Your task to perform on an android device: open a bookmark in the chrome app Image 0: 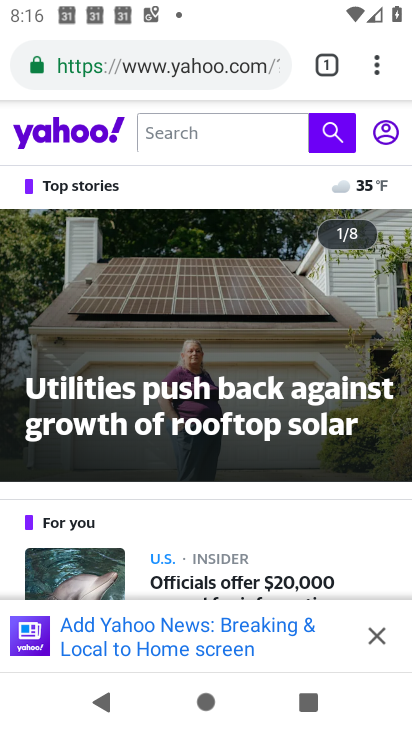
Step 0: press home button
Your task to perform on an android device: open a bookmark in the chrome app Image 1: 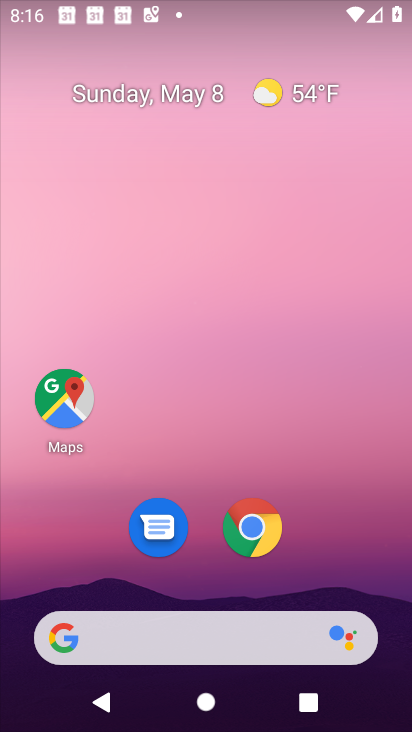
Step 1: click (261, 522)
Your task to perform on an android device: open a bookmark in the chrome app Image 2: 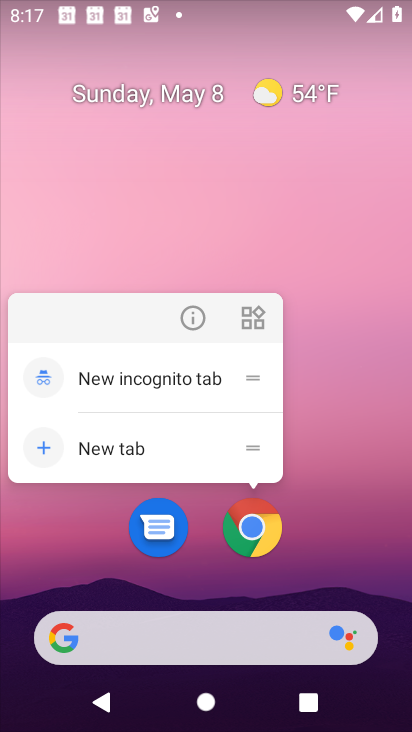
Step 2: click (261, 518)
Your task to perform on an android device: open a bookmark in the chrome app Image 3: 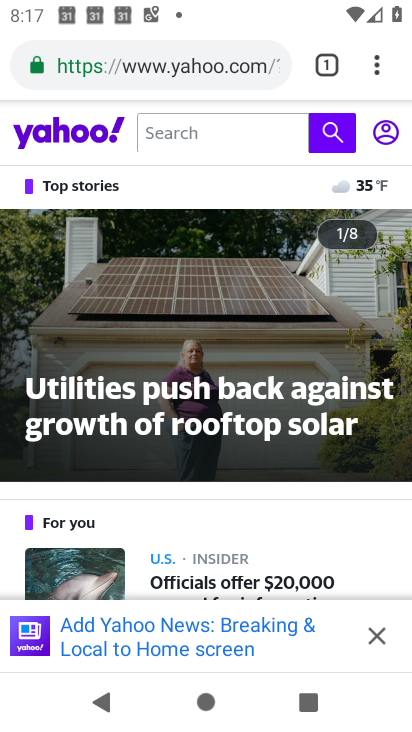
Step 3: click (380, 66)
Your task to perform on an android device: open a bookmark in the chrome app Image 4: 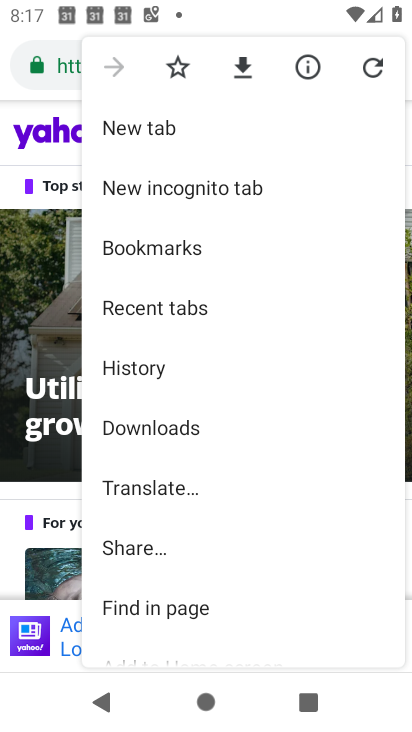
Step 4: click (168, 251)
Your task to perform on an android device: open a bookmark in the chrome app Image 5: 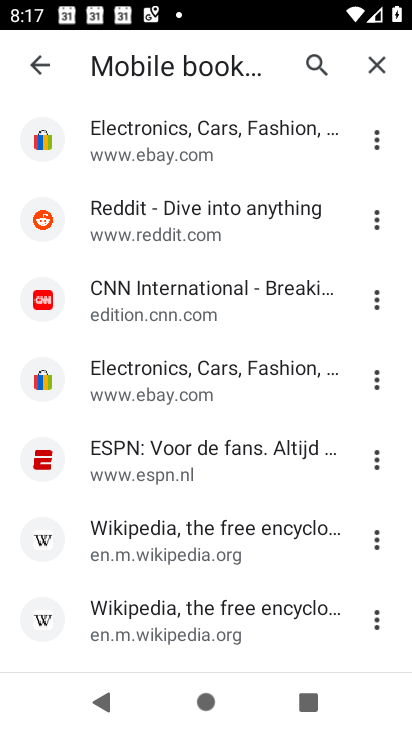
Step 5: click (139, 295)
Your task to perform on an android device: open a bookmark in the chrome app Image 6: 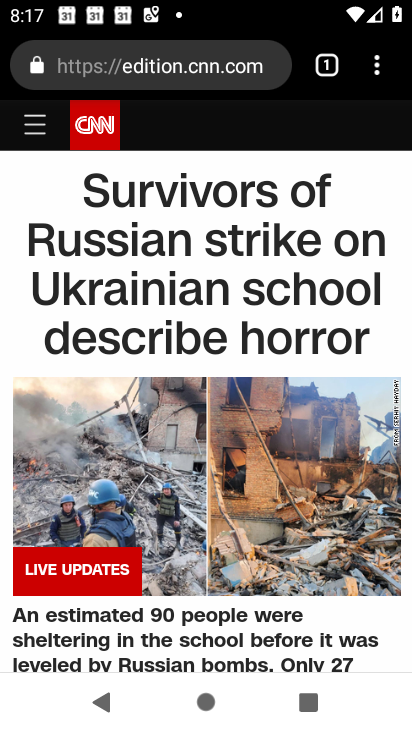
Step 6: task complete